Your task to perform on an android device: Open wifi settings Image 0: 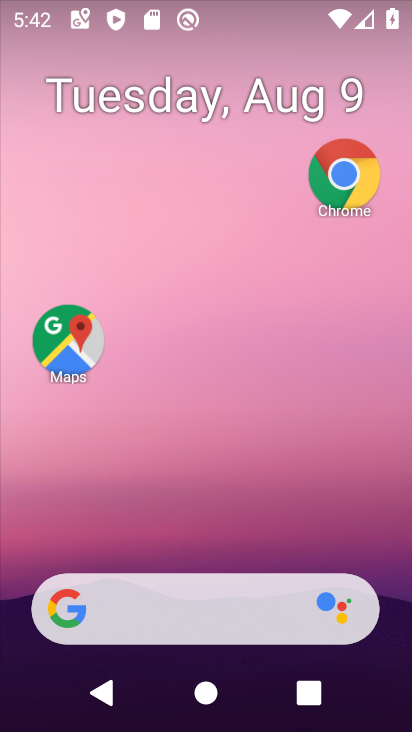
Step 0: drag from (206, 532) to (232, 388)
Your task to perform on an android device: Open wifi settings Image 1: 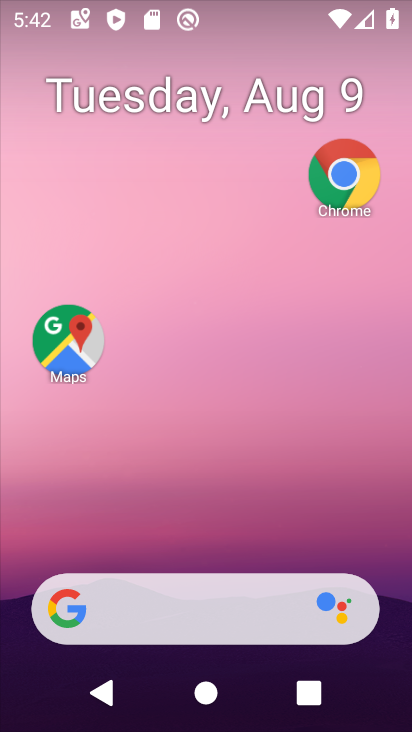
Step 1: drag from (199, 525) to (240, 131)
Your task to perform on an android device: Open wifi settings Image 2: 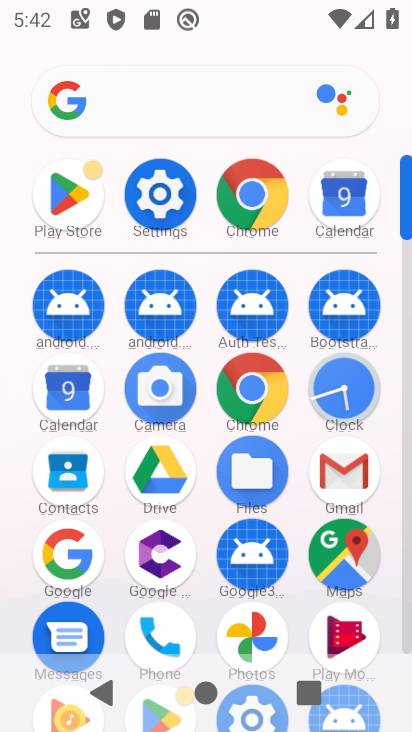
Step 2: drag from (203, 613) to (230, 144)
Your task to perform on an android device: Open wifi settings Image 3: 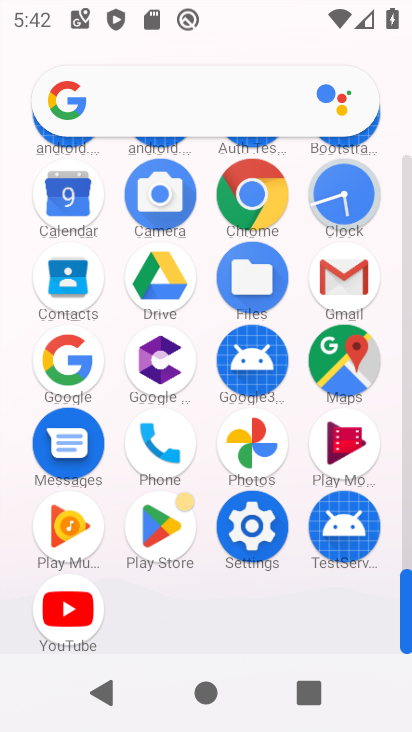
Step 3: click (275, 521)
Your task to perform on an android device: Open wifi settings Image 4: 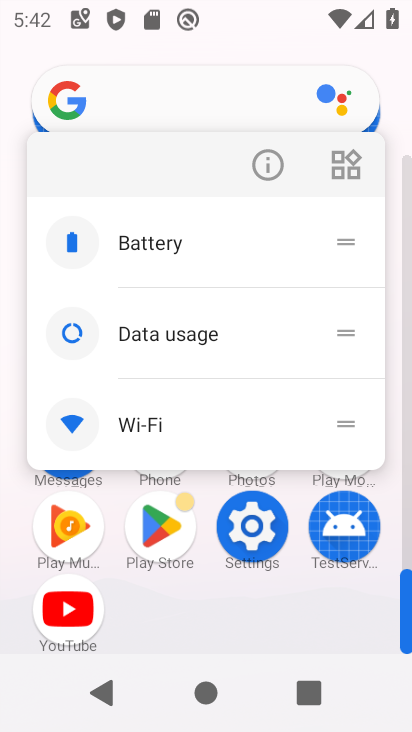
Step 4: click (261, 172)
Your task to perform on an android device: Open wifi settings Image 5: 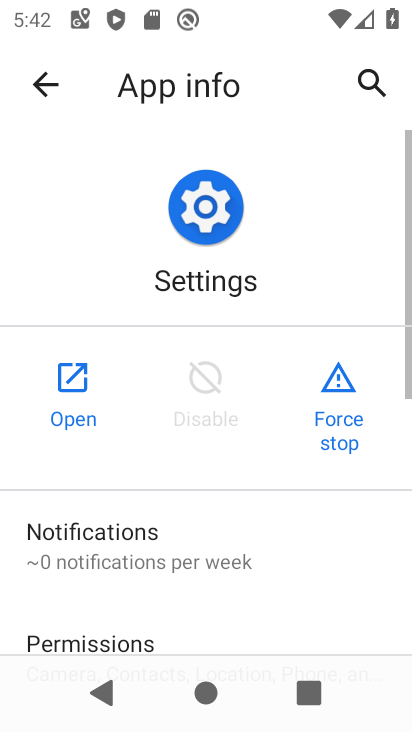
Step 5: click (82, 386)
Your task to perform on an android device: Open wifi settings Image 6: 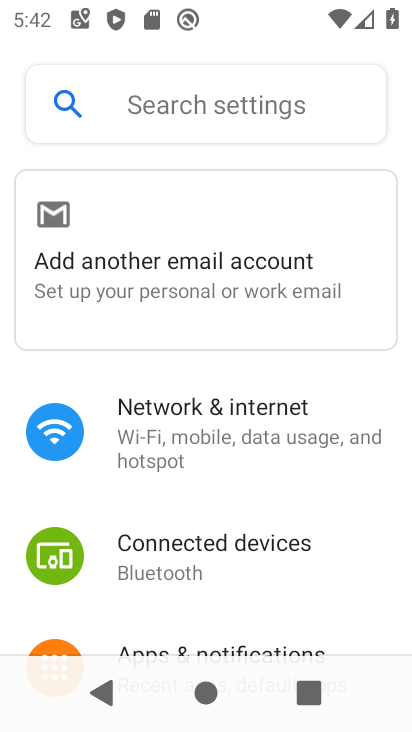
Step 6: drag from (226, 501) to (243, 275)
Your task to perform on an android device: Open wifi settings Image 7: 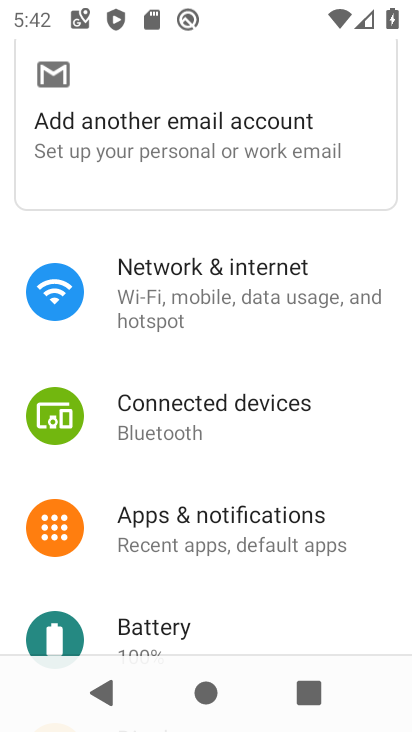
Step 7: click (162, 303)
Your task to perform on an android device: Open wifi settings Image 8: 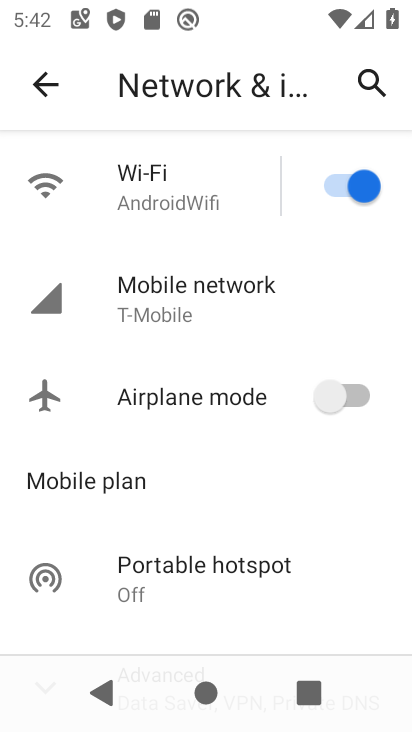
Step 8: click (150, 193)
Your task to perform on an android device: Open wifi settings Image 9: 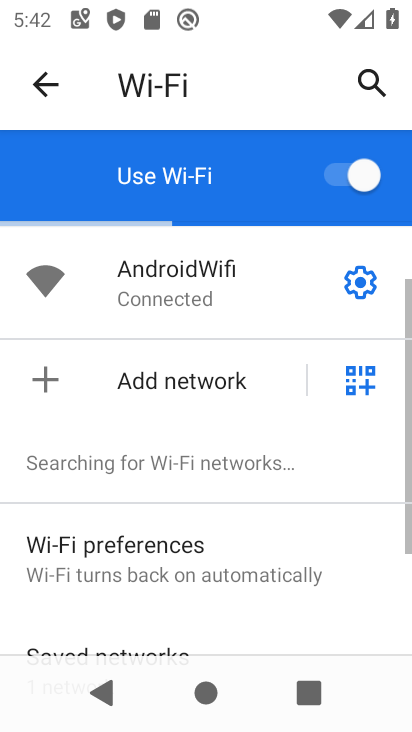
Step 9: click (360, 277)
Your task to perform on an android device: Open wifi settings Image 10: 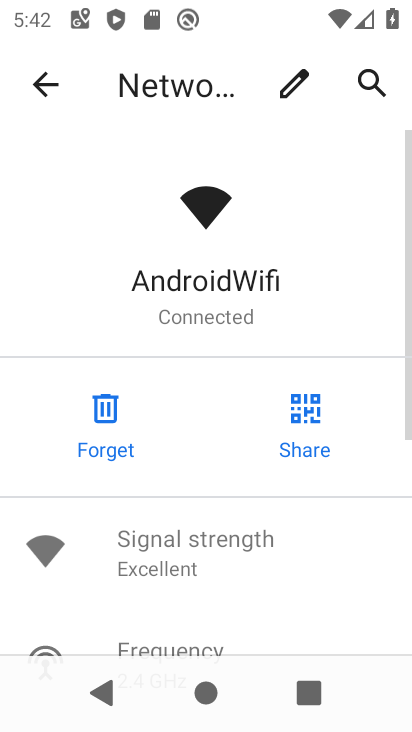
Step 10: task complete